Your task to perform on an android device: Open Maps and search for coffee Image 0: 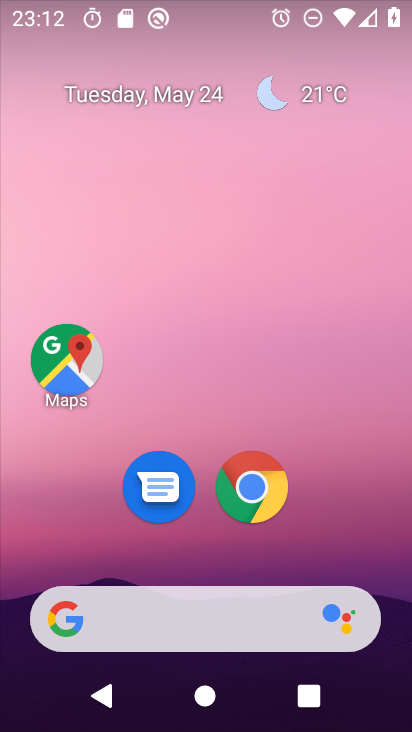
Step 0: click (68, 367)
Your task to perform on an android device: Open Maps and search for coffee Image 1: 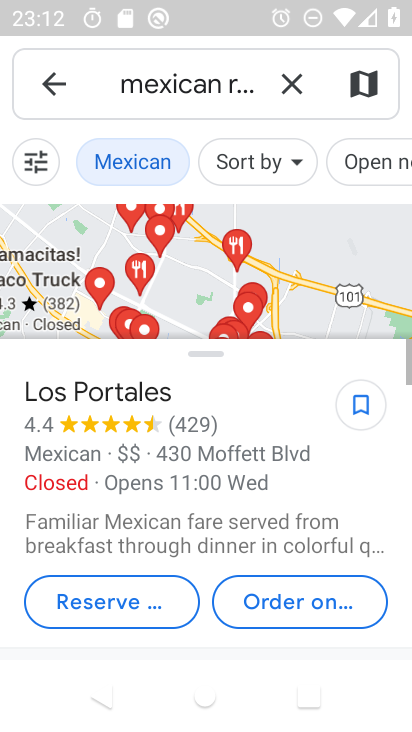
Step 1: click (303, 82)
Your task to perform on an android device: Open Maps and search for coffee Image 2: 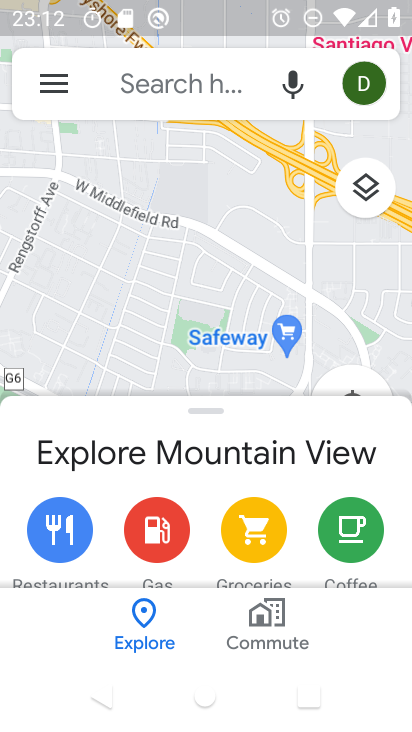
Step 2: click (134, 90)
Your task to perform on an android device: Open Maps and search for coffee Image 3: 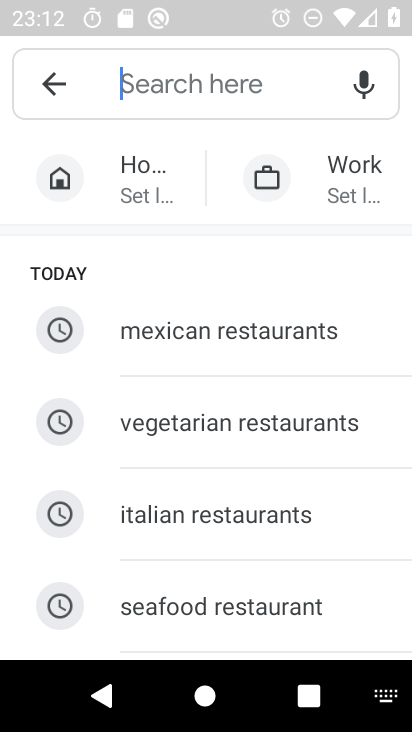
Step 3: type "coffee"
Your task to perform on an android device: Open Maps and search for coffee Image 4: 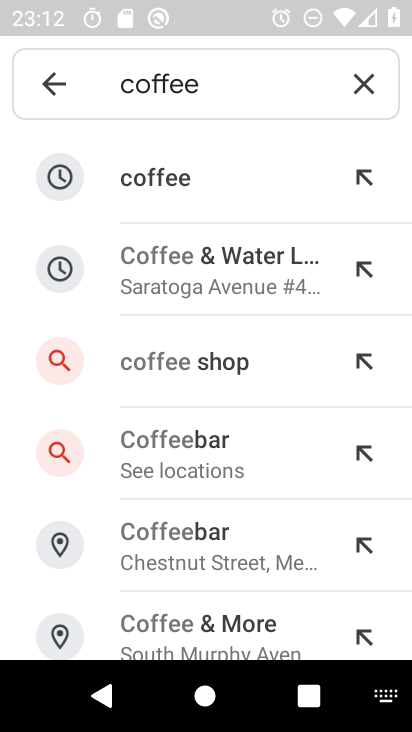
Step 4: click (135, 181)
Your task to perform on an android device: Open Maps and search for coffee Image 5: 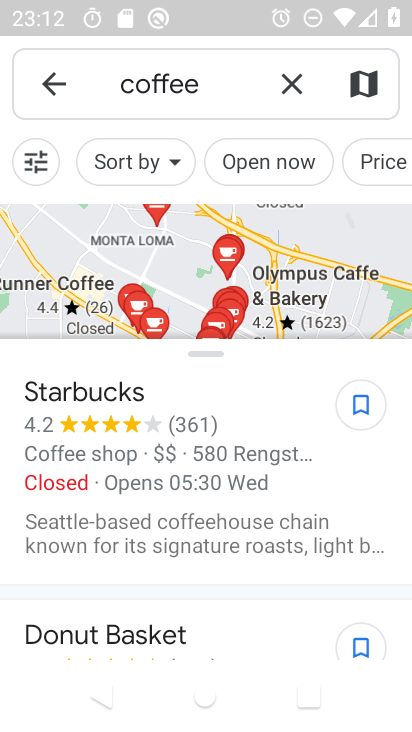
Step 5: task complete